Your task to perform on an android device: open a new tab in the chrome app Image 0: 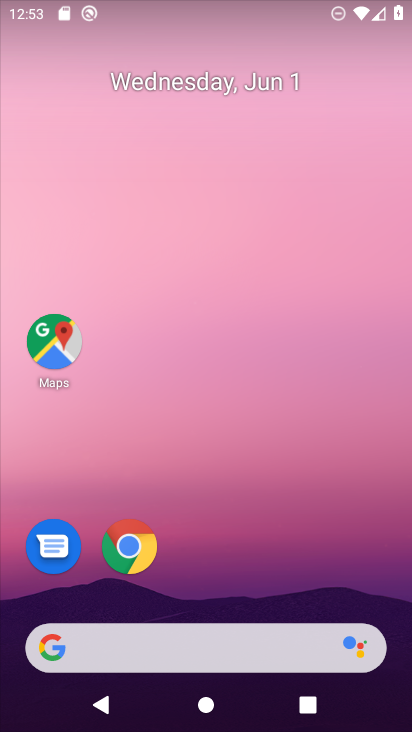
Step 0: click (155, 556)
Your task to perform on an android device: open a new tab in the chrome app Image 1: 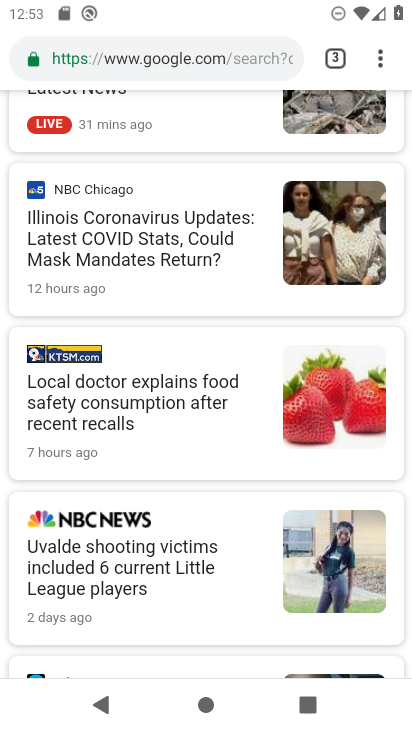
Step 1: click (337, 58)
Your task to perform on an android device: open a new tab in the chrome app Image 2: 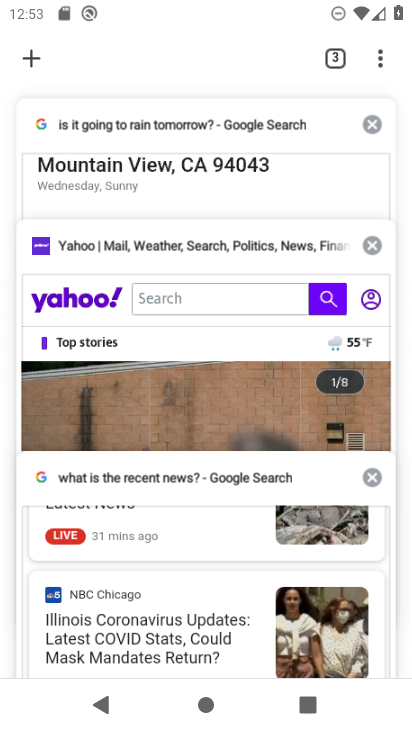
Step 2: click (34, 53)
Your task to perform on an android device: open a new tab in the chrome app Image 3: 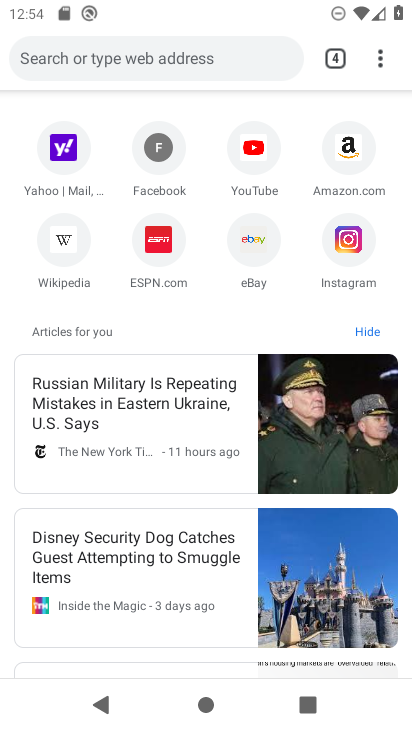
Step 3: task complete